Your task to perform on an android device: Open notification settings Image 0: 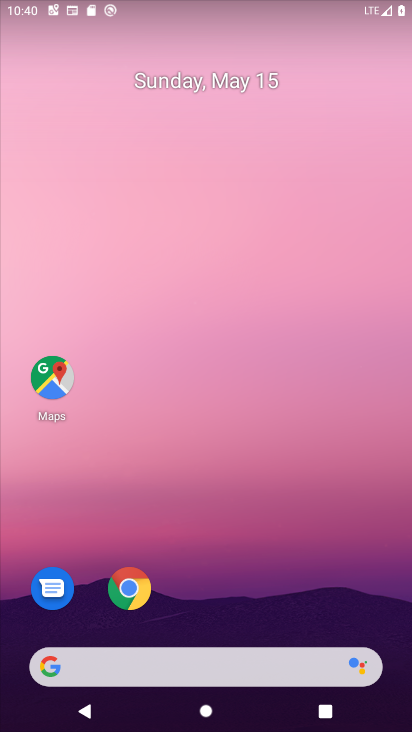
Step 0: drag from (277, 557) to (307, 158)
Your task to perform on an android device: Open notification settings Image 1: 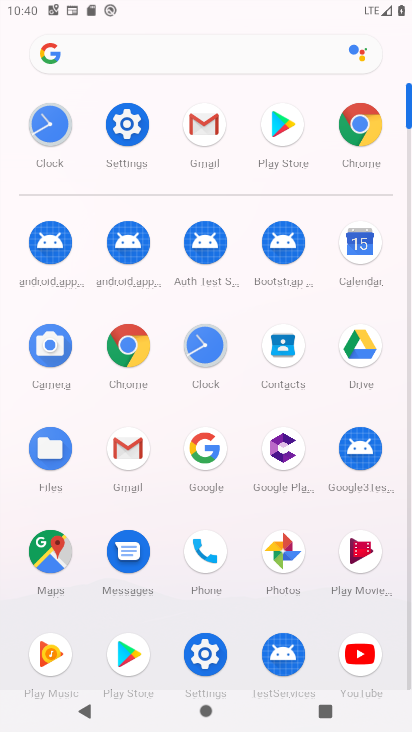
Step 1: click (128, 124)
Your task to perform on an android device: Open notification settings Image 2: 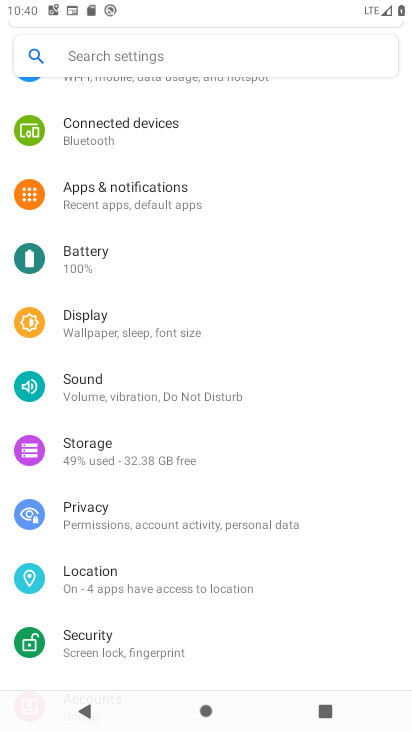
Step 2: click (152, 184)
Your task to perform on an android device: Open notification settings Image 3: 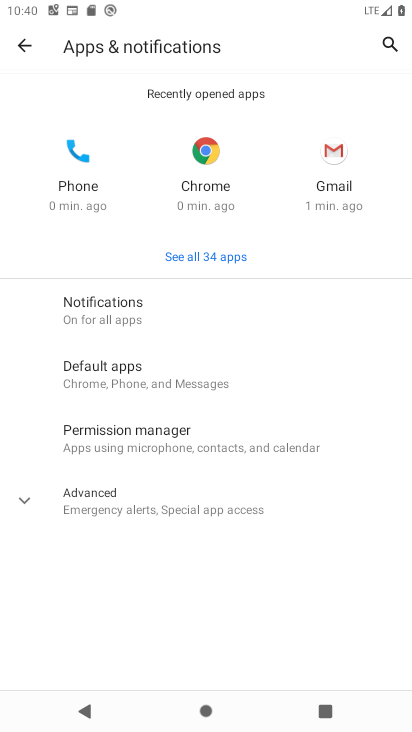
Step 3: task complete